Your task to perform on an android device: Go to Yahoo.com Image 0: 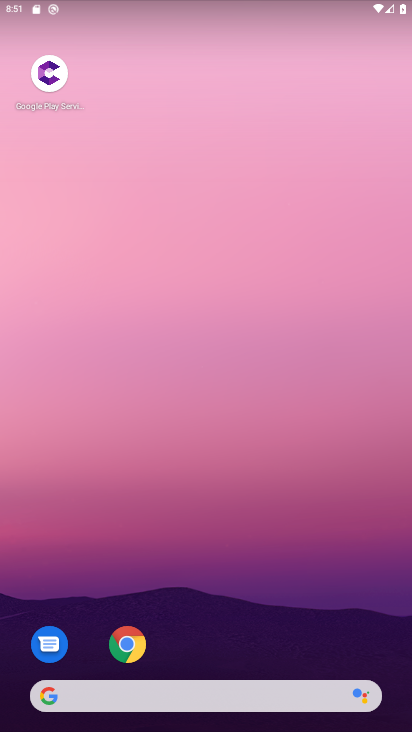
Step 0: click (192, 698)
Your task to perform on an android device: Go to Yahoo.com Image 1: 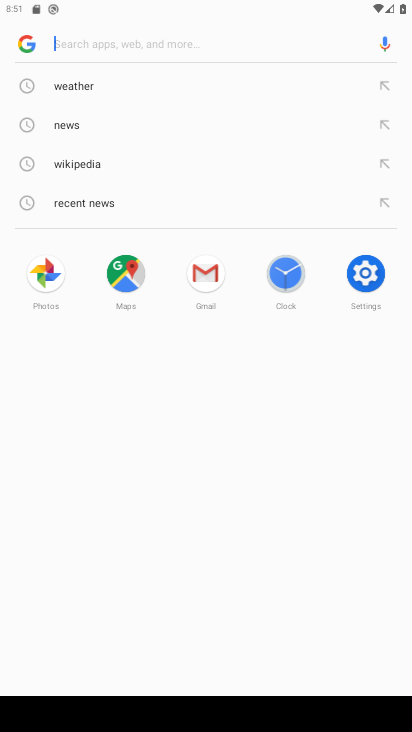
Step 1: type "Yahoo.com"
Your task to perform on an android device: Go to Yahoo.com Image 2: 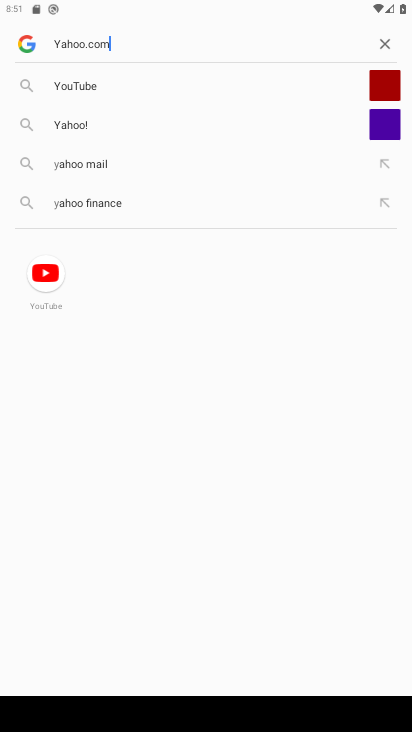
Step 2: press enter
Your task to perform on an android device: Go to Yahoo.com Image 3: 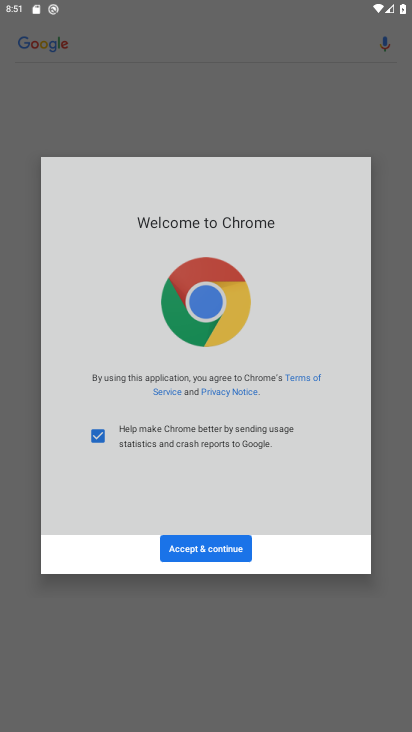
Step 3: click (213, 543)
Your task to perform on an android device: Go to Yahoo.com Image 4: 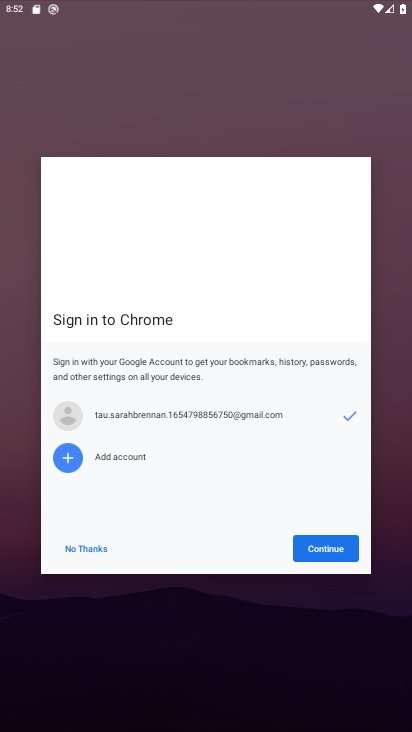
Step 4: click (324, 545)
Your task to perform on an android device: Go to Yahoo.com Image 5: 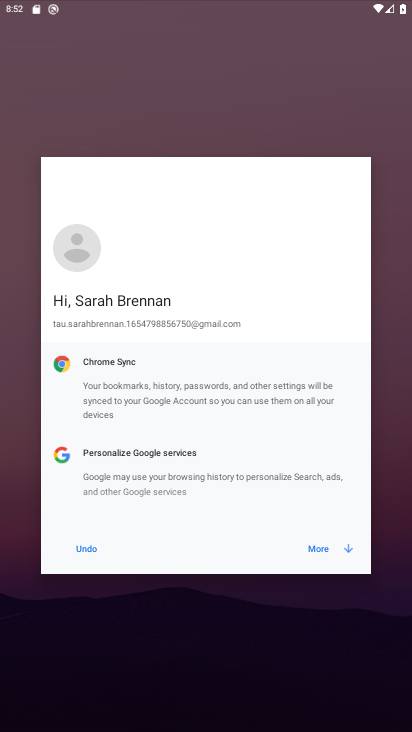
Step 5: click (326, 549)
Your task to perform on an android device: Go to Yahoo.com Image 6: 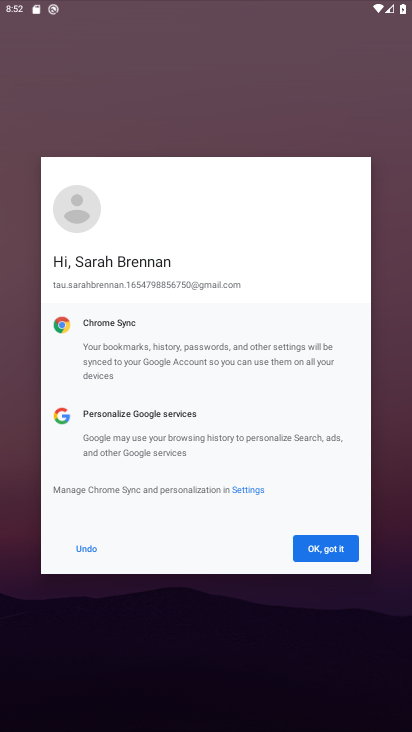
Step 6: click (326, 549)
Your task to perform on an android device: Go to Yahoo.com Image 7: 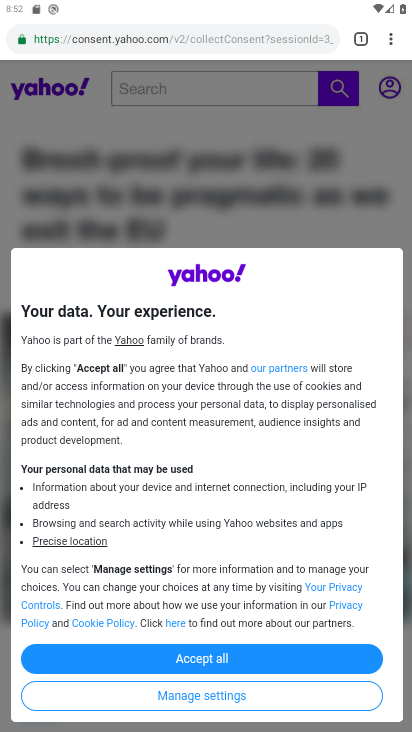
Step 7: task complete